Your task to perform on an android device: turn on sleep mode Image 0: 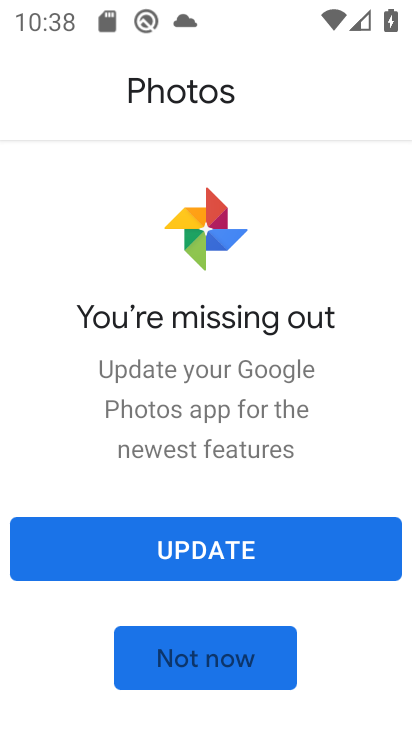
Step 0: press home button
Your task to perform on an android device: turn on sleep mode Image 1: 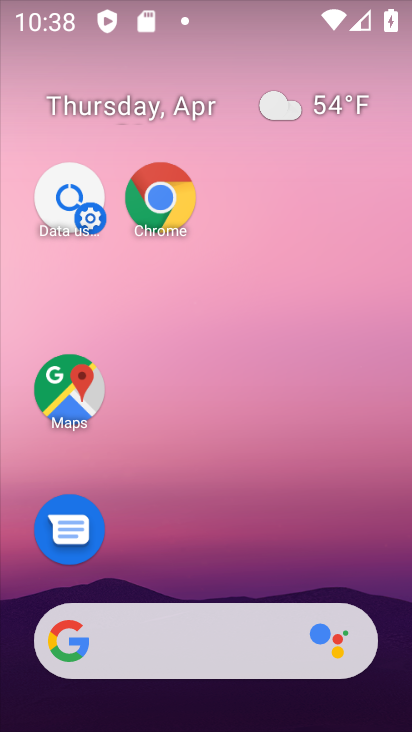
Step 1: drag from (249, 603) to (385, 547)
Your task to perform on an android device: turn on sleep mode Image 2: 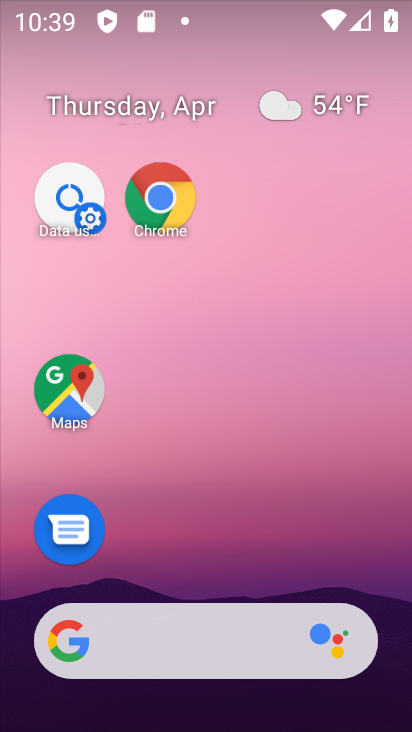
Step 2: drag from (222, 590) to (315, 582)
Your task to perform on an android device: turn on sleep mode Image 3: 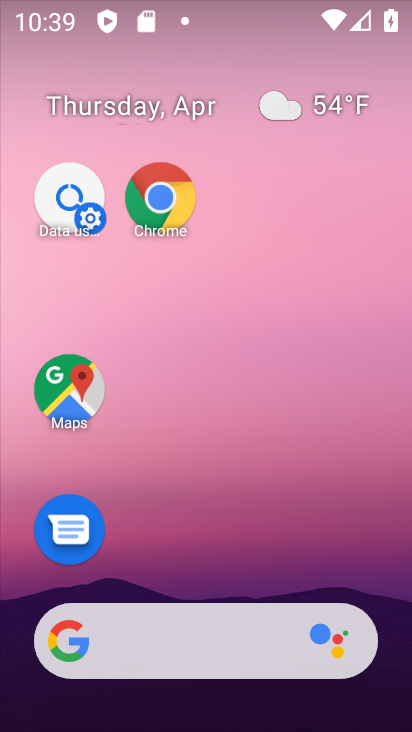
Step 3: drag from (201, 585) to (309, 24)
Your task to perform on an android device: turn on sleep mode Image 4: 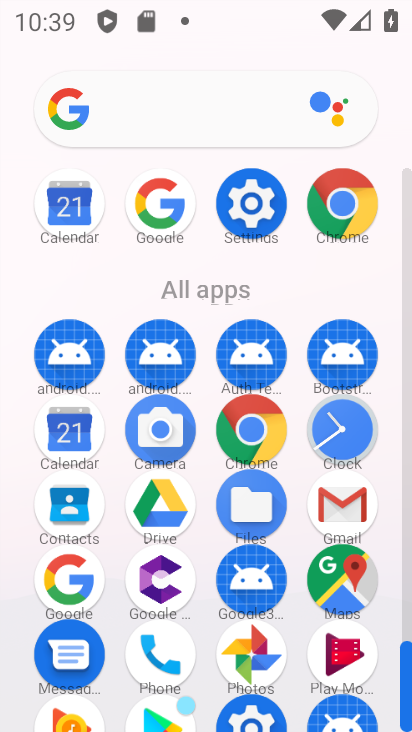
Step 4: click (257, 202)
Your task to perform on an android device: turn on sleep mode Image 5: 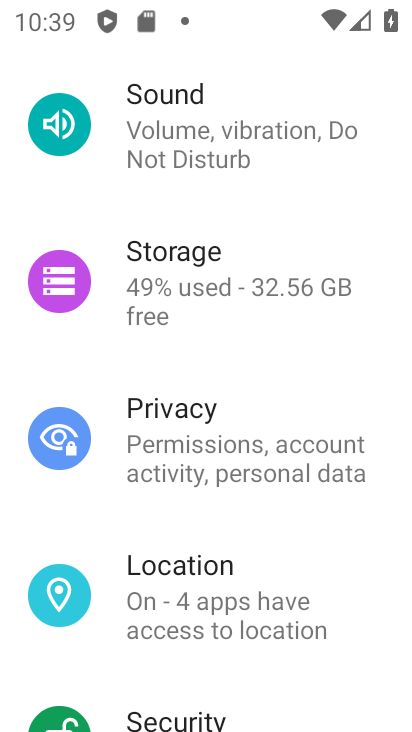
Step 5: drag from (172, 140) to (144, 611)
Your task to perform on an android device: turn on sleep mode Image 6: 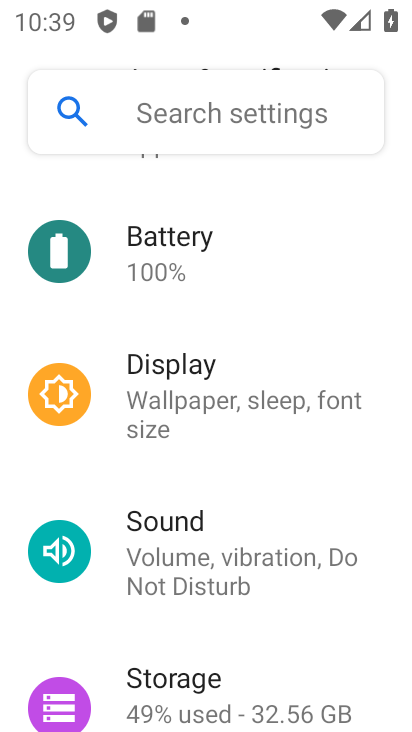
Step 6: click (189, 397)
Your task to perform on an android device: turn on sleep mode Image 7: 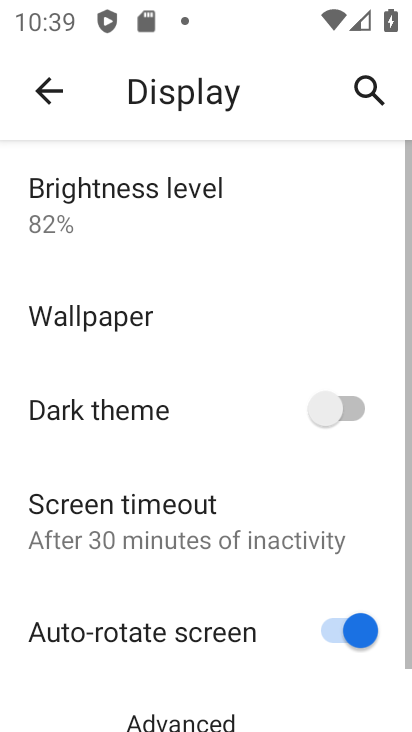
Step 7: task complete